Your task to perform on an android device: Open calendar and show me the first week of next month Image 0: 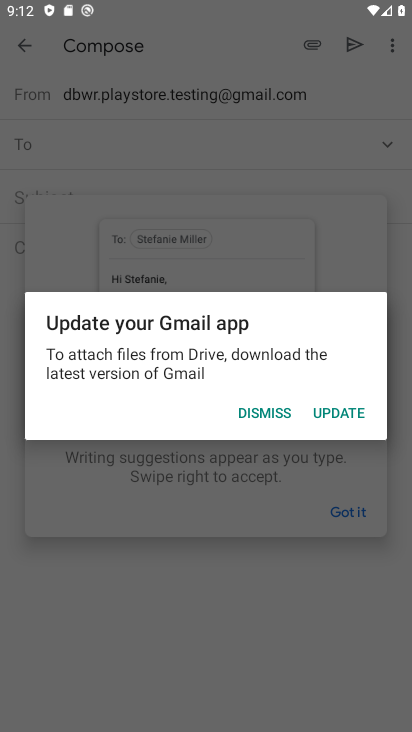
Step 0: press home button
Your task to perform on an android device: Open calendar and show me the first week of next month Image 1: 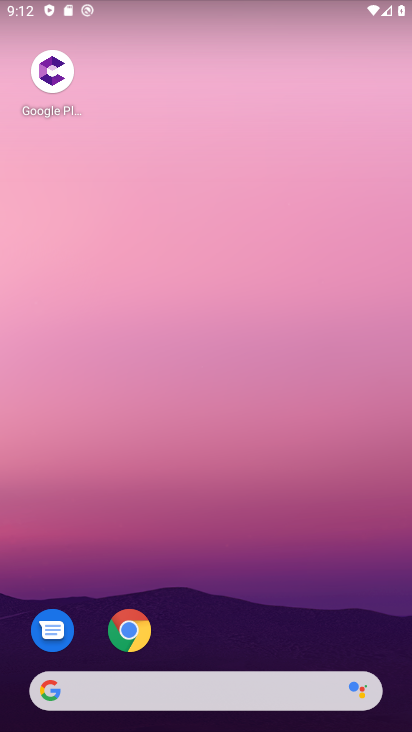
Step 1: drag from (263, 606) to (334, 127)
Your task to perform on an android device: Open calendar and show me the first week of next month Image 2: 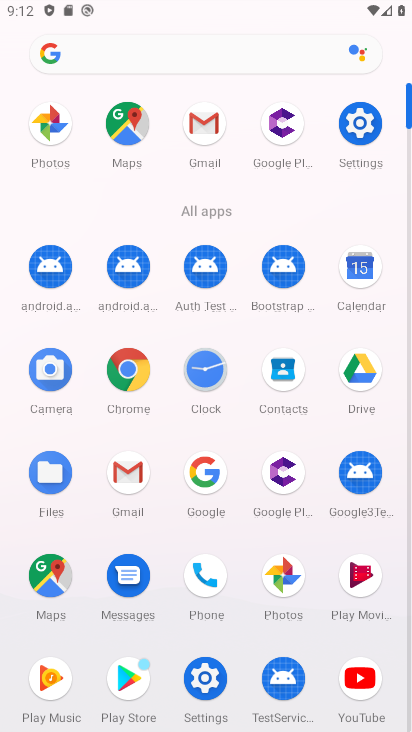
Step 2: click (361, 263)
Your task to perform on an android device: Open calendar and show me the first week of next month Image 3: 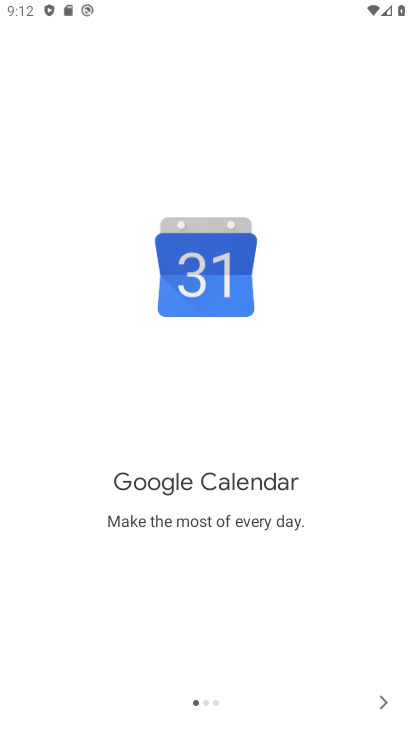
Step 3: click (386, 698)
Your task to perform on an android device: Open calendar and show me the first week of next month Image 4: 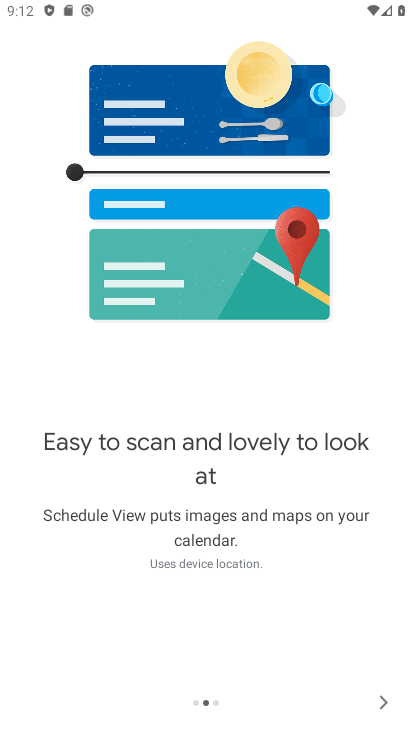
Step 4: click (386, 698)
Your task to perform on an android device: Open calendar and show me the first week of next month Image 5: 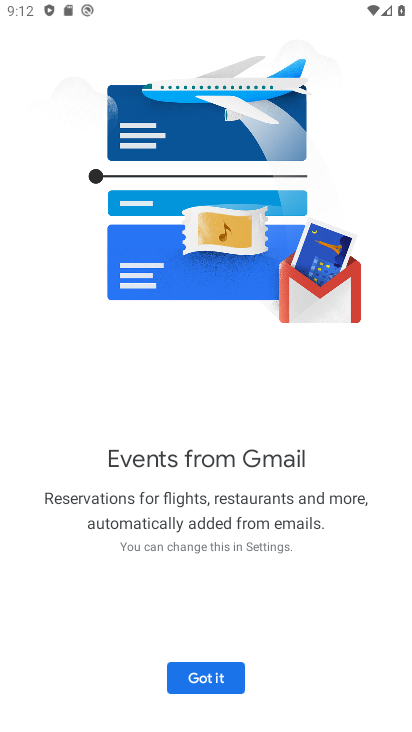
Step 5: click (234, 671)
Your task to perform on an android device: Open calendar and show me the first week of next month Image 6: 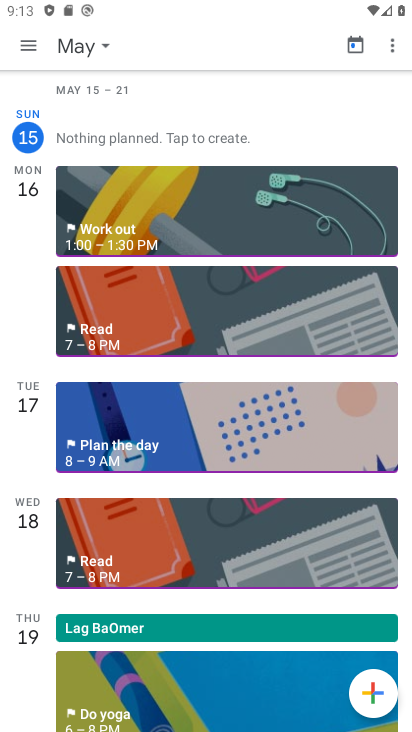
Step 6: click (89, 44)
Your task to perform on an android device: Open calendar and show me the first week of next month Image 7: 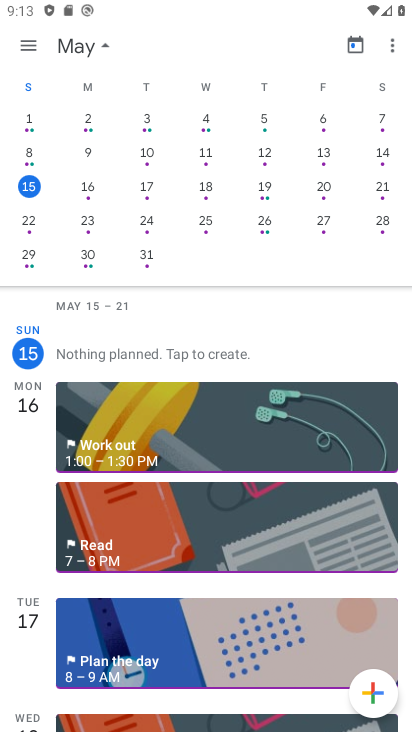
Step 7: drag from (388, 169) to (13, 159)
Your task to perform on an android device: Open calendar and show me the first week of next month Image 8: 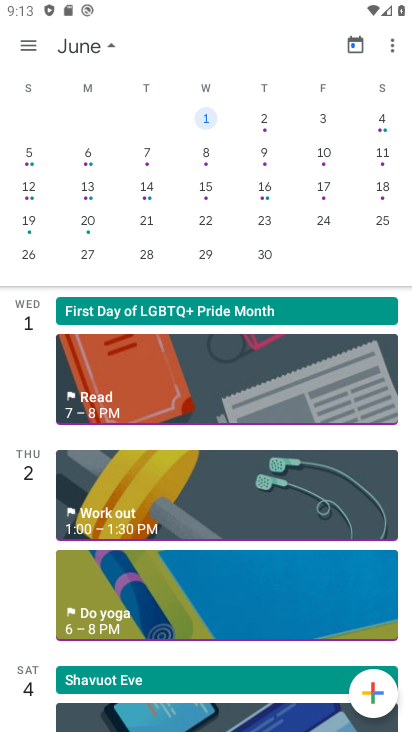
Step 8: click (385, 122)
Your task to perform on an android device: Open calendar and show me the first week of next month Image 9: 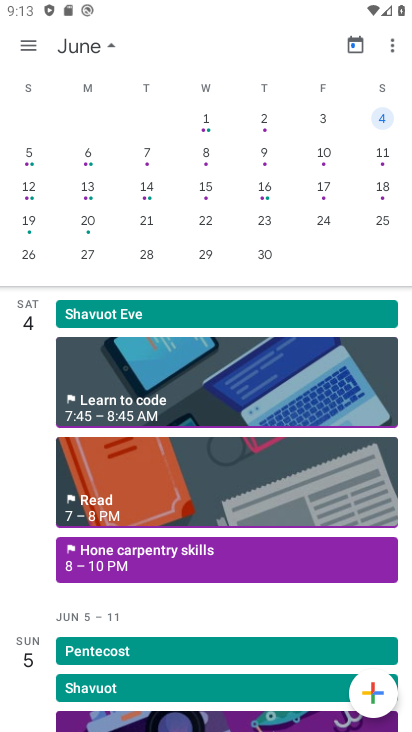
Step 9: task complete